Your task to perform on an android device: Go to Google maps Image 0: 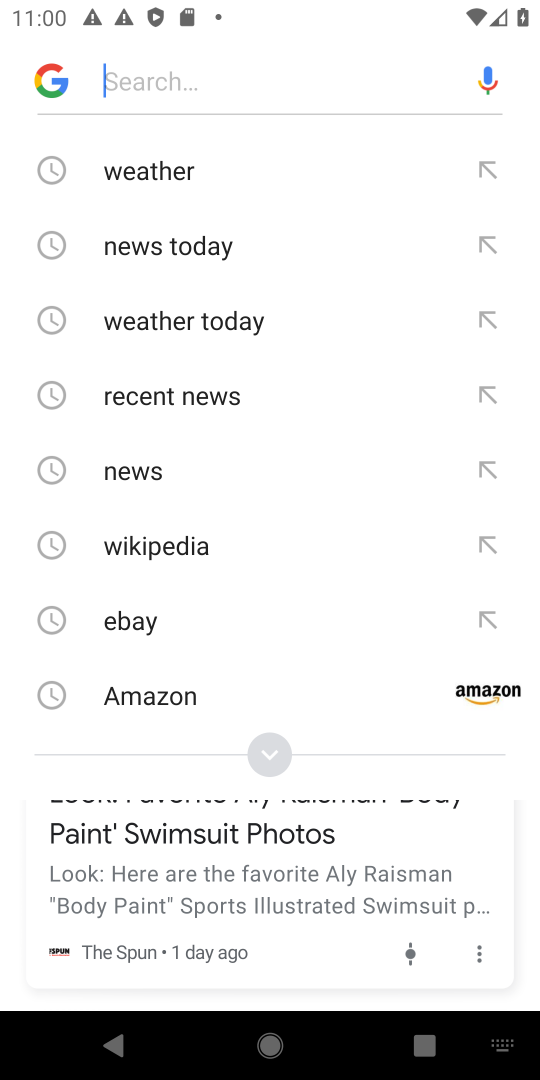
Step 0: press home button
Your task to perform on an android device: Go to Google maps Image 1: 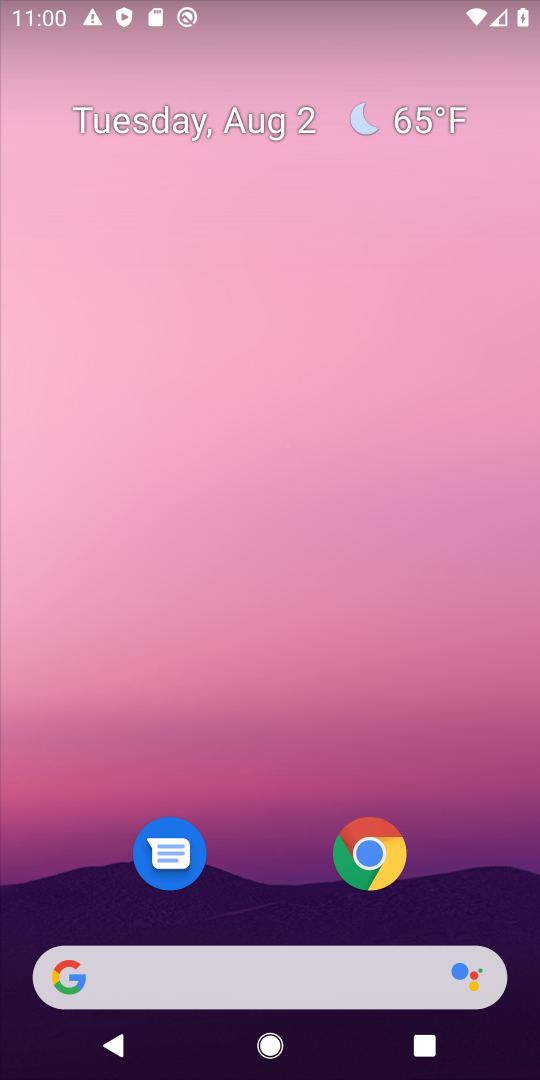
Step 1: drag from (310, 844) to (507, 145)
Your task to perform on an android device: Go to Google maps Image 2: 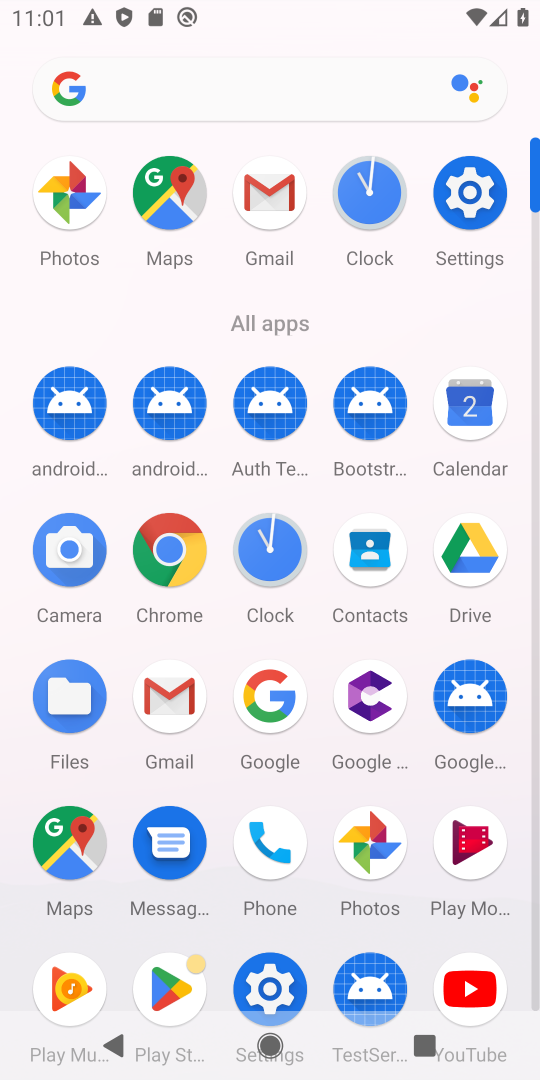
Step 2: click (69, 854)
Your task to perform on an android device: Go to Google maps Image 3: 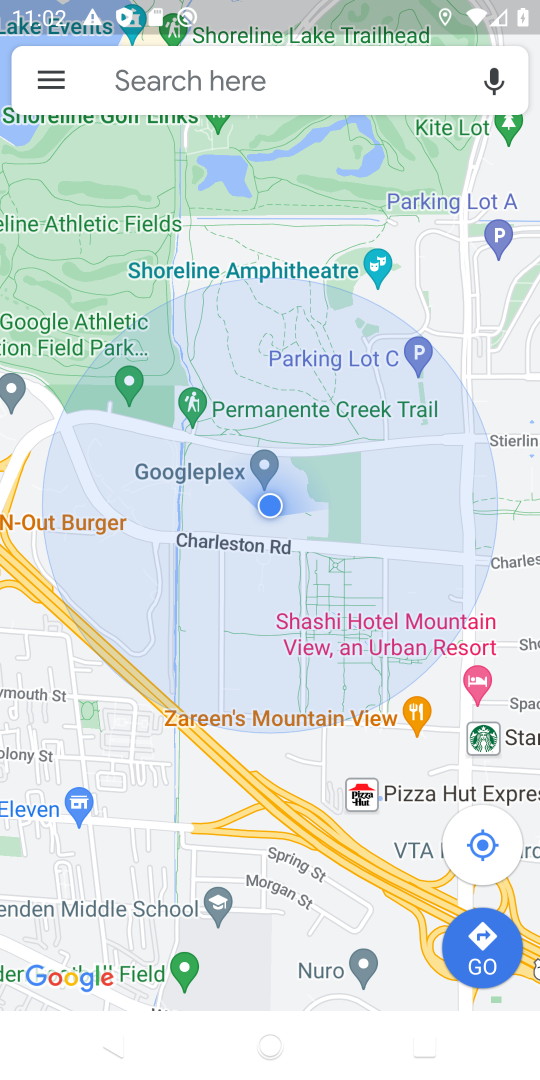
Step 3: task complete